Your task to perform on an android device: Go to calendar. Show me events next week Image 0: 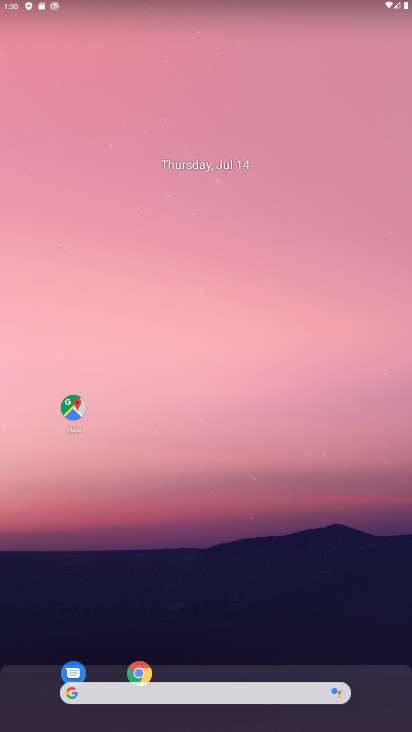
Step 0: drag from (218, 672) to (217, 99)
Your task to perform on an android device: Go to calendar. Show me events next week Image 1: 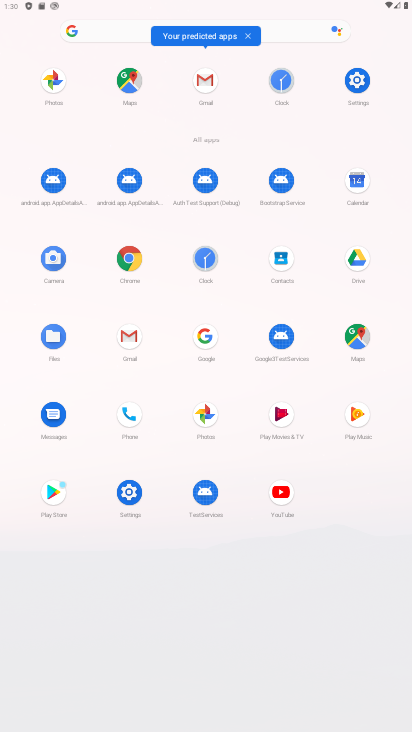
Step 1: click (357, 185)
Your task to perform on an android device: Go to calendar. Show me events next week Image 2: 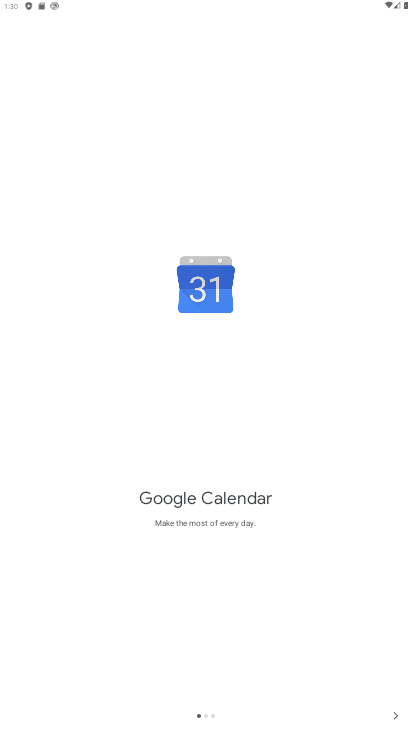
Step 2: click (397, 711)
Your task to perform on an android device: Go to calendar. Show me events next week Image 3: 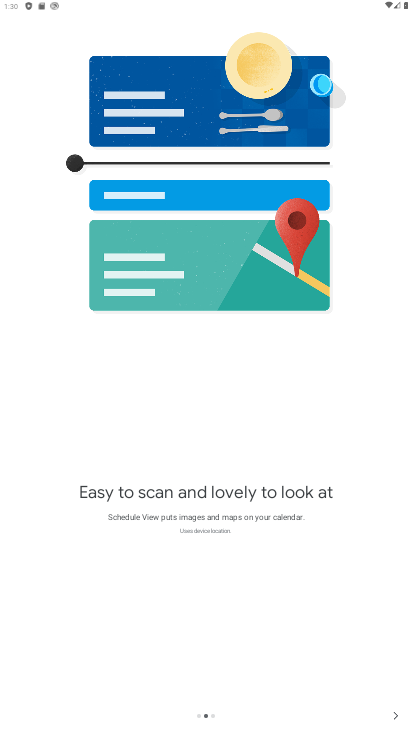
Step 3: click (397, 711)
Your task to perform on an android device: Go to calendar. Show me events next week Image 4: 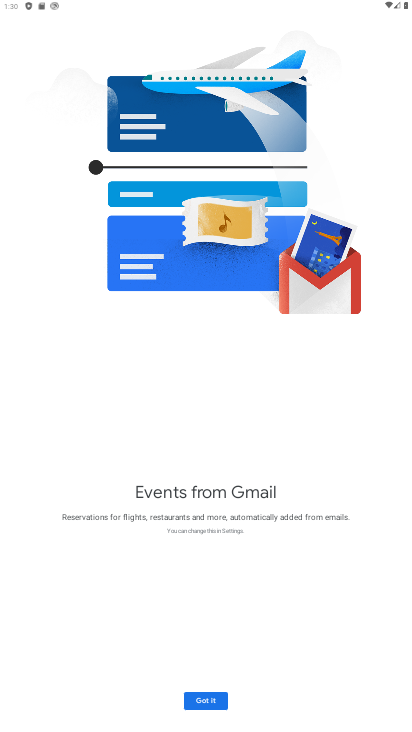
Step 4: click (195, 703)
Your task to perform on an android device: Go to calendar. Show me events next week Image 5: 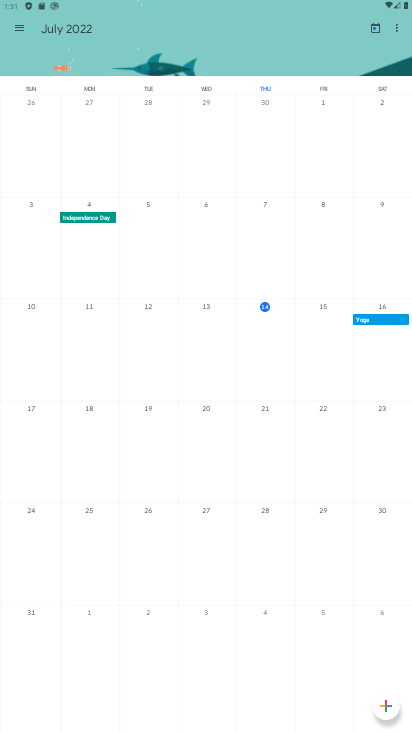
Step 5: click (319, 314)
Your task to perform on an android device: Go to calendar. Show me events next week Image 6: 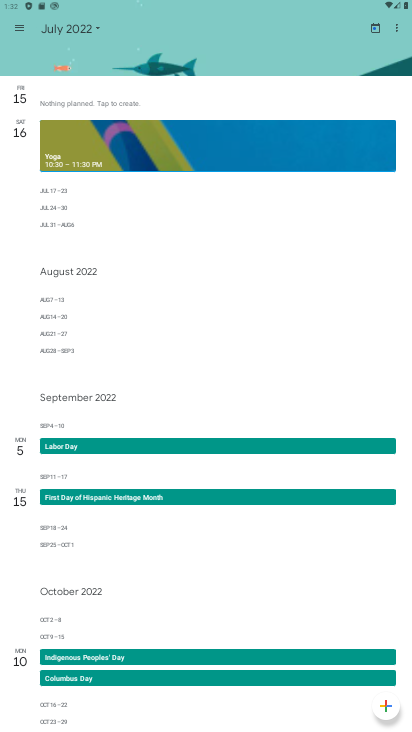
Step 6: click (97, 26)
Your task to perform on an android device: Go to calendar. Show me events next week Image 7: 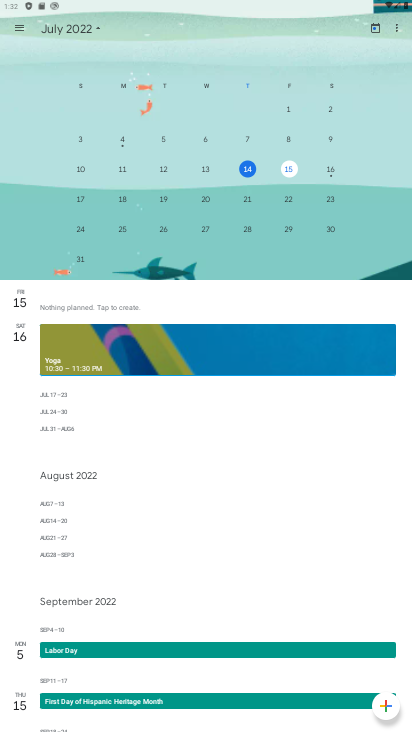
Step 7: click (214, 199)
Your task to perform on an android device: Go to calendar. Show me events next week Image 8: 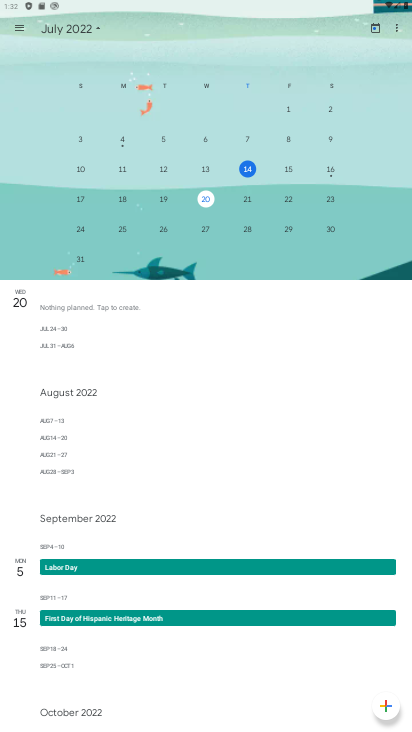
Step 8: task complete